Your task to perform on an android device: toggle improve location accuracy Image 0: 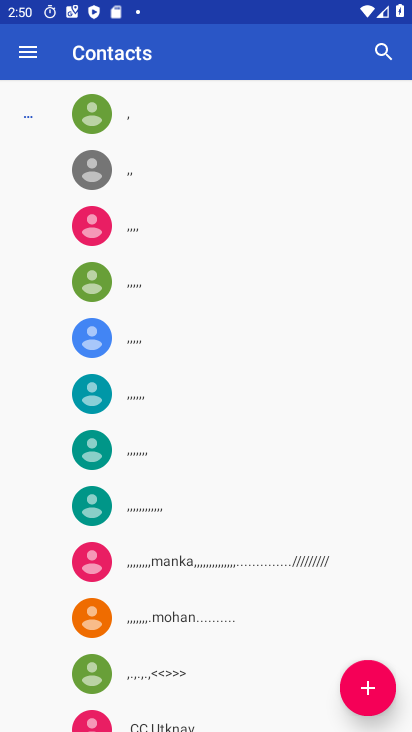
Step 0: press home button
Your task to perform on an android device: toggle improve location accuracy Image 1: 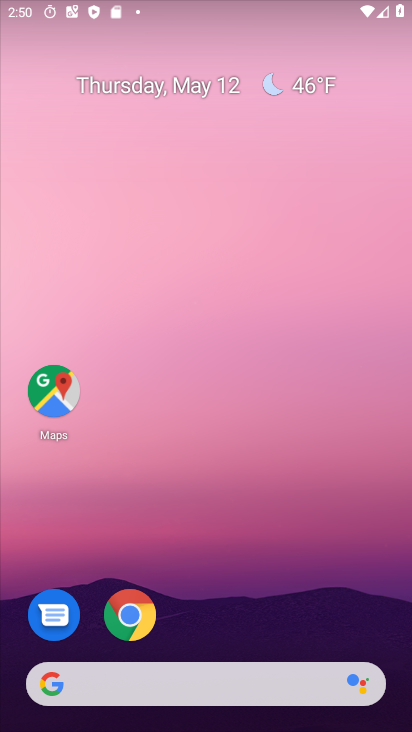
Step 1: drag from (245, 593) to (286, 79)
Your task to perform on an android device: toggle improve location accuracy Image 2: 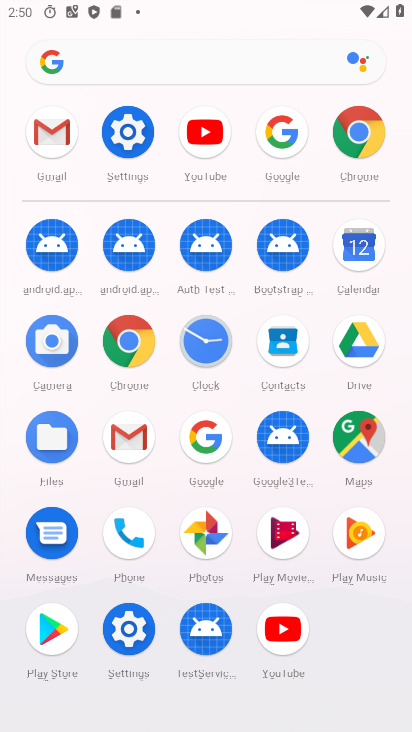
Step 2: click (128, 125)
Your task to perform on an android device: toggle improve location accuracy Image 3: 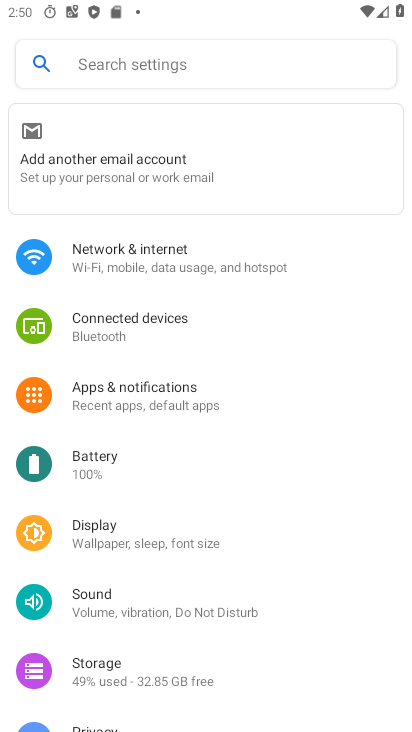
Step 3: drag from (161, 590) to (210, 162)
Your task to perform on an android device: toggle improve location accuracy Image 4: 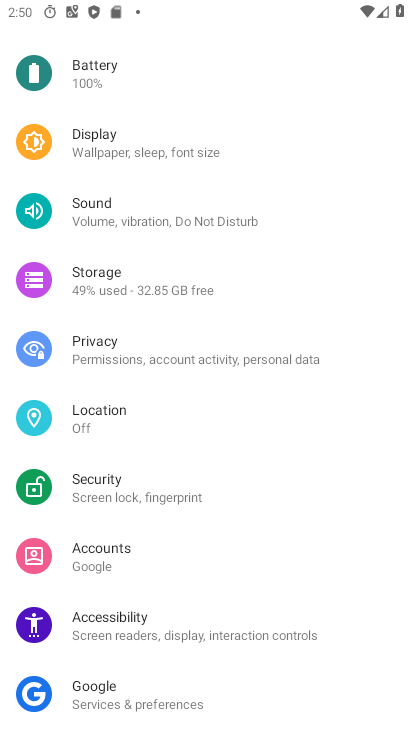
Step 4: click (132, 435)
Your task to perform on an android device: toggle improve location accuracy Image 5: 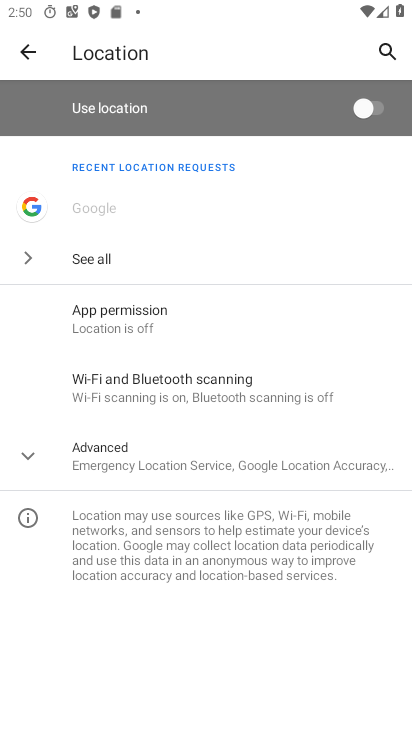
Step 5: drag from (263, 572) to (252, 492)
Your task to perform on an android device: toggle improve location accuracy Image 6: 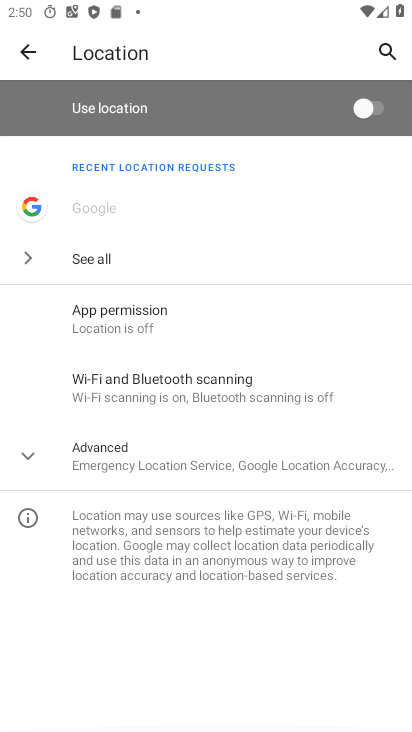
Step 6: click (129, 445)
Your task to perform on an android device: toggle improve location accuracy Image 7: 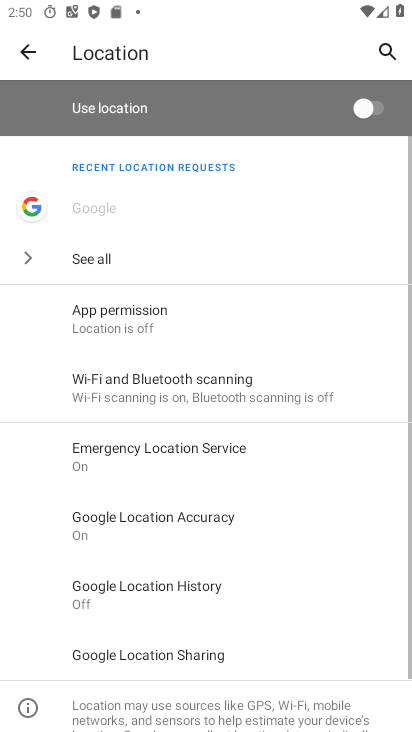
Step 7: drag from (222, 564) to (216, 457)
Your task to perform on an android device: toggle improve location accuracy Image 8: 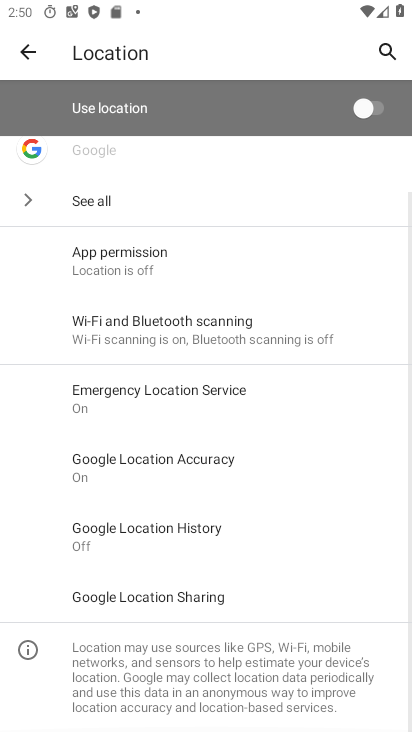
Step 8: click (141, 458)
Your task to perform on an android device: toggle improve location accuracy Image 9: 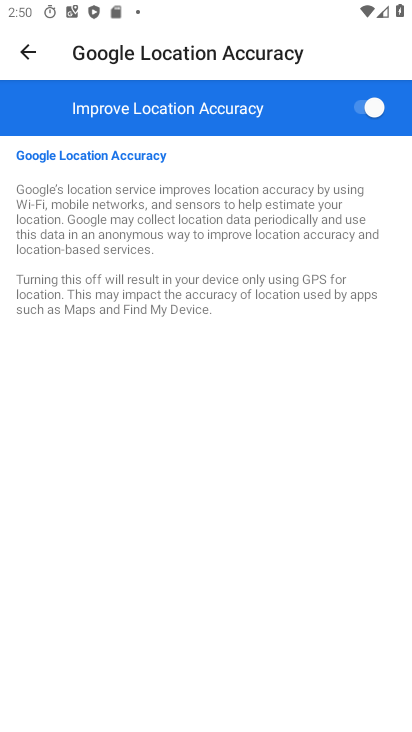
Step 9: click (376, 113)
Your task to perform on an android device: toggle improve location accuracy Image 10: 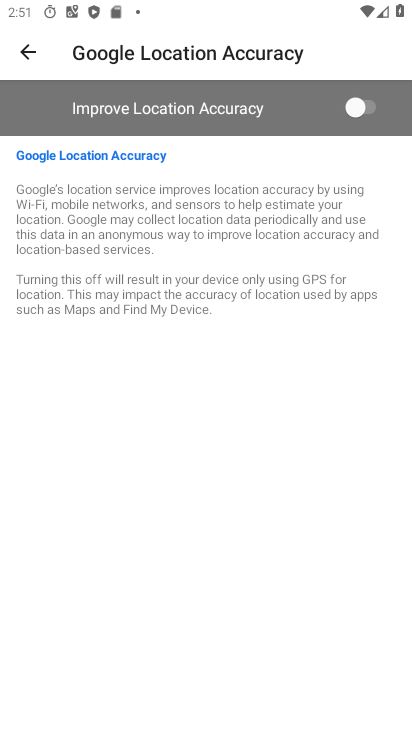
Step 10: task complete